Your task to perform on an android device: What is the recent news? Image 0: 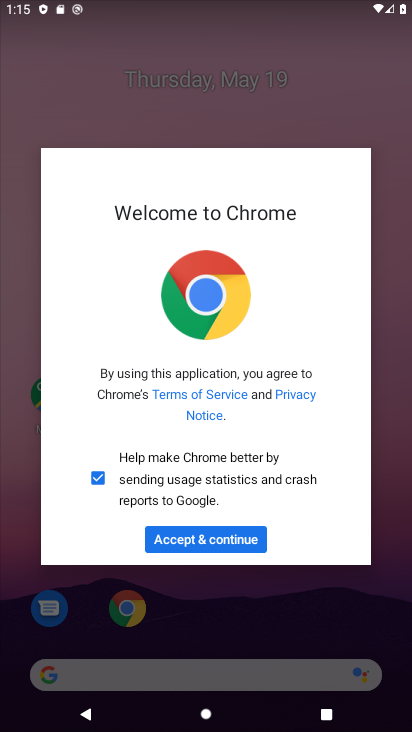
Step 0: click (202, 536)
Your task to perform on an android device: What is the recent news? Image 1: 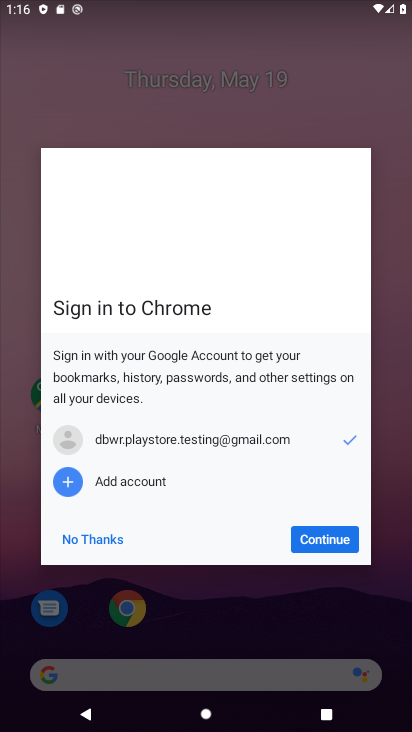
Step 1: click (303, 544)
Your task to perform on an android device: What is the recent news? Image 2: 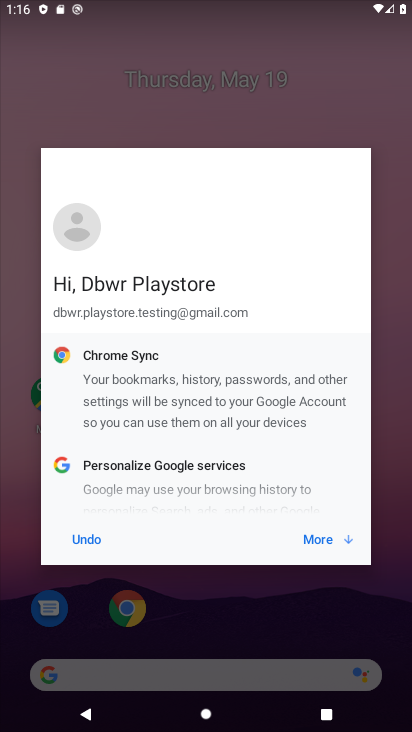
Step 2: click (303, 544)
Your task to perform on an android device: What is the recent news? Image 3: 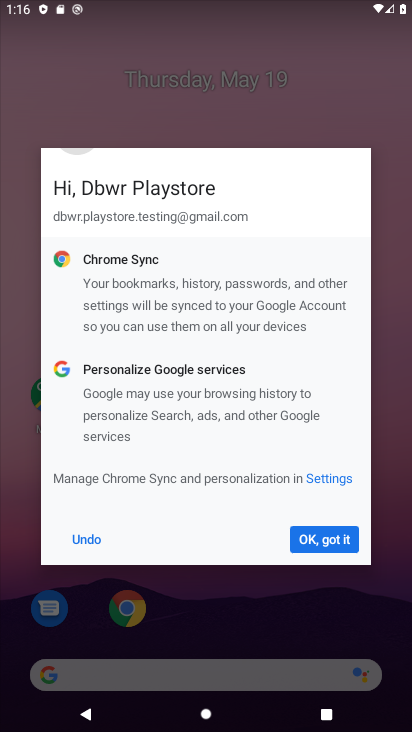
Step 3: click (303, 544)
Your task to perform on an android device: What is the recent news? Image 4: 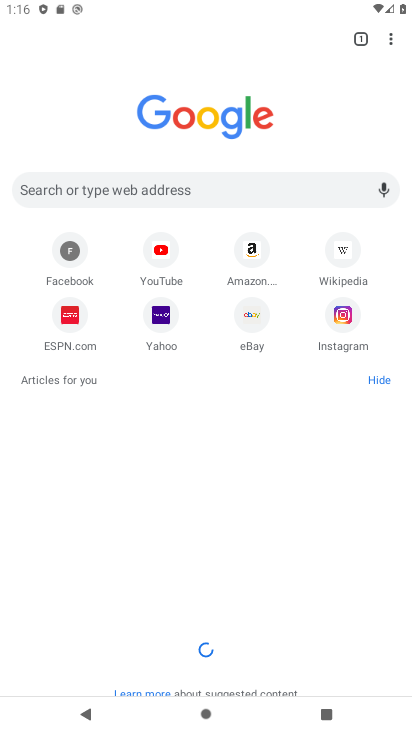
Step 4: press home button
Your task to perform on an android device: What is the recent news? Image 5: 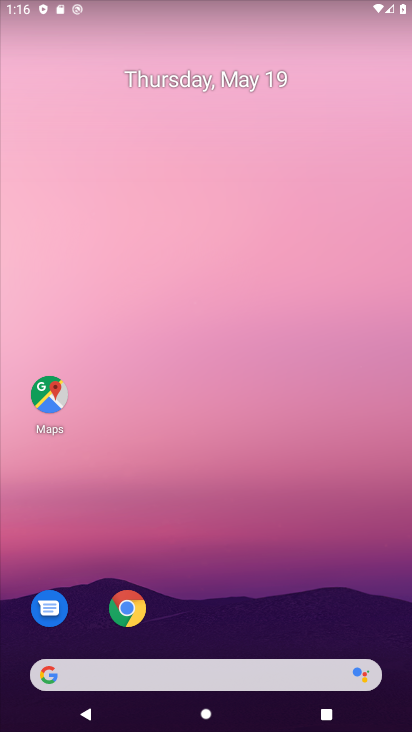
Step 5: click (229, 671)
Your task to perform on an android device: What is the recent news? Image 6: 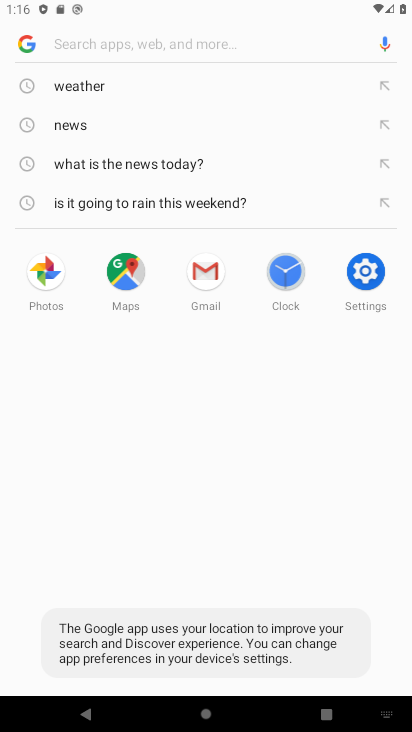
Step 6: click (124, 134)
Your task to perform on an android device: What is the recent news? Image 7: 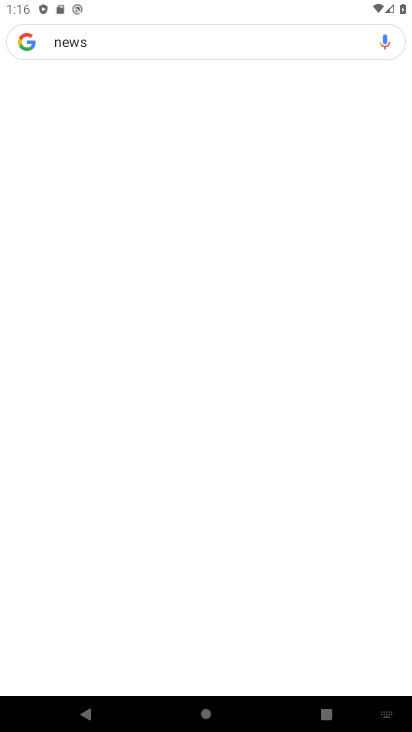
Step 7: task complete